Your task to perform on an android device: Do I have any events today? Image 0: 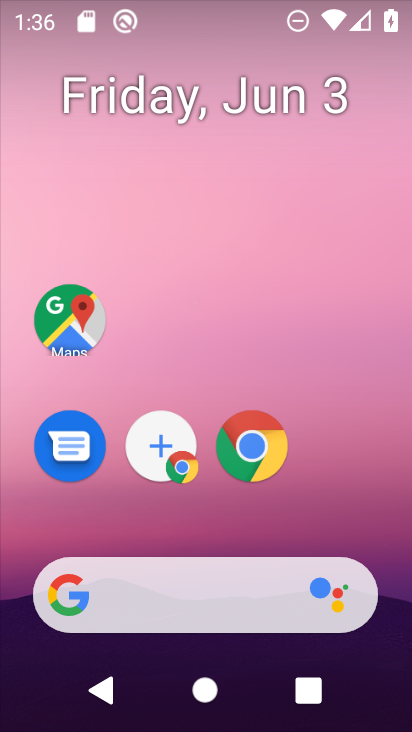
Step 0: drag from (262, 641) to (236, 36)
Your task to perform on an android device: Do I have any events today? Image 1: 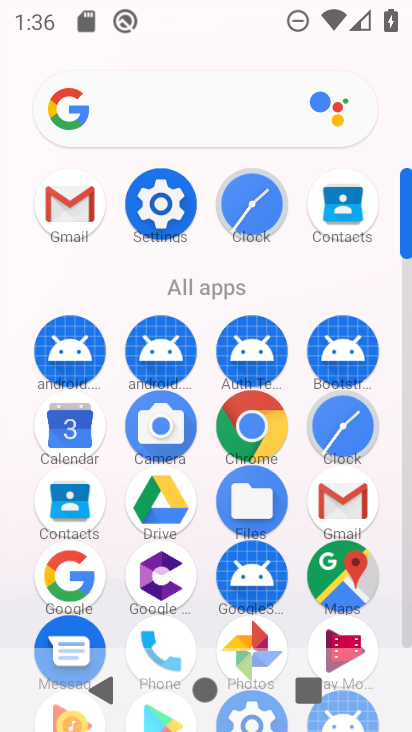
Step 1: click (69, 424)
Your task to perform on an android device: Do I have any events today? Image 2: 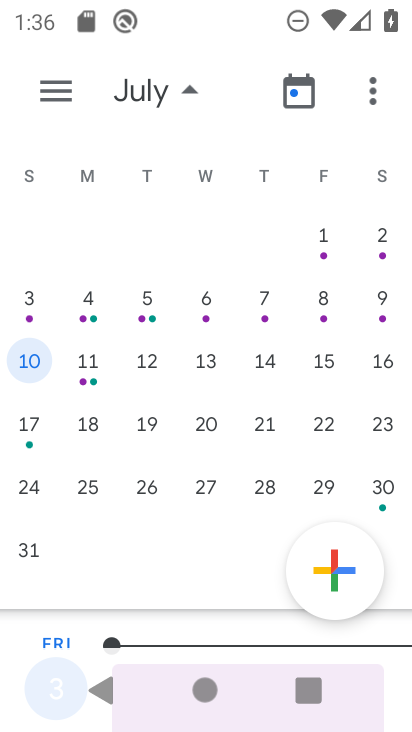
Step 2: drag from (108, 226) to (367, 338)
Your task to perform on an android device: Do I have any events today? Image 3: 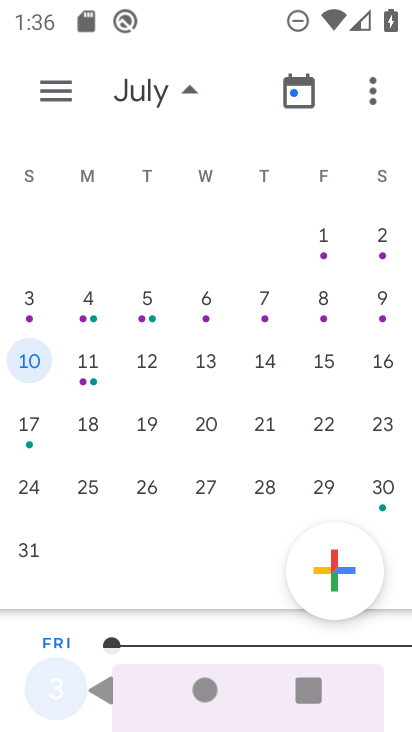
Step 3: click (154, 228)
Your task to perform on an android device: Do I have any events today? Image 4: 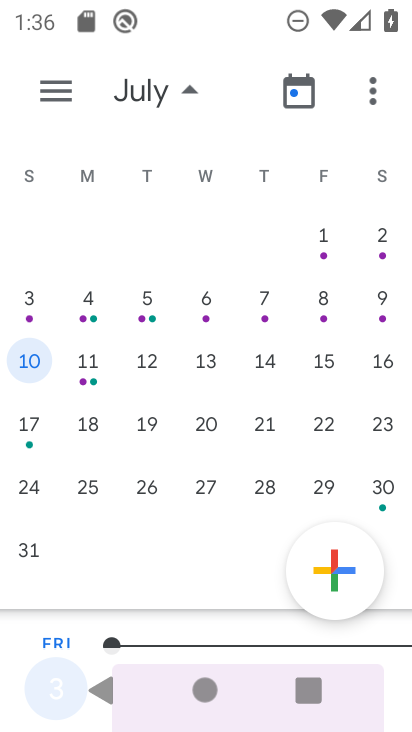
Step 4: drag from (93, 239) to (361, 336)
Your task to perform on an android device: Do I have any events today? Image 5: 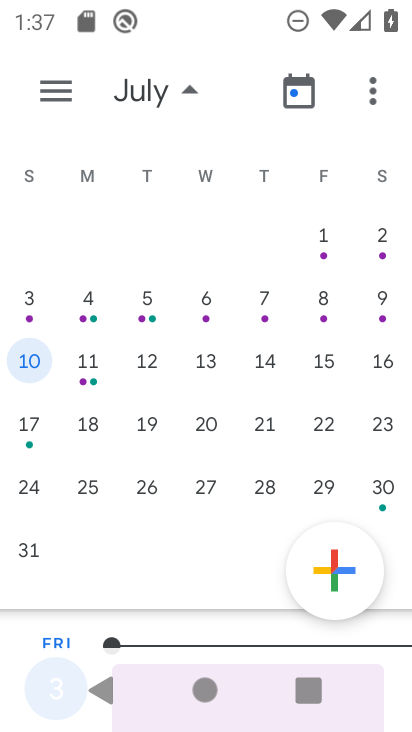
Step 5: drag from (36, 245) to (400, 352)
Your task to perform on an android device: Do I have any events today? Image 6: 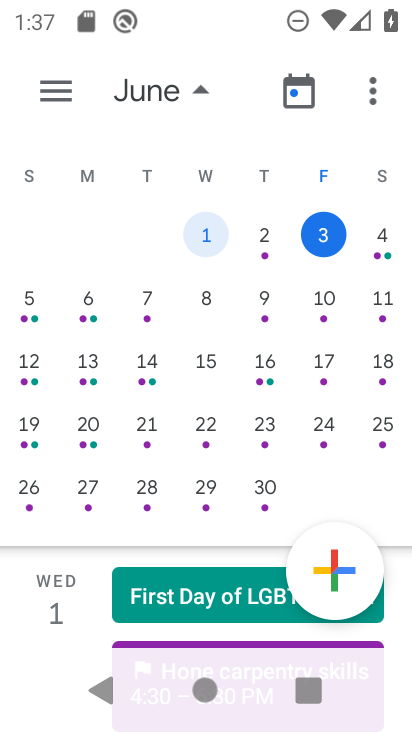
Step 6: click (332, 233)
Your task to perform on an android device: Do I have any events today? Image 7: 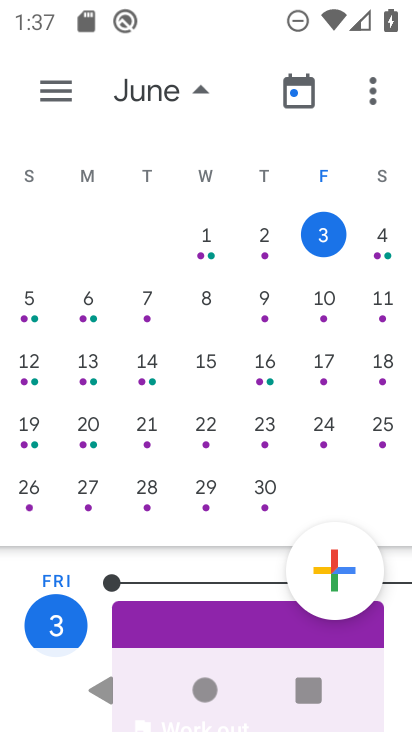
Step 7: task complete